Your task to perform on an android device: What's the news in Japan? Image 0: 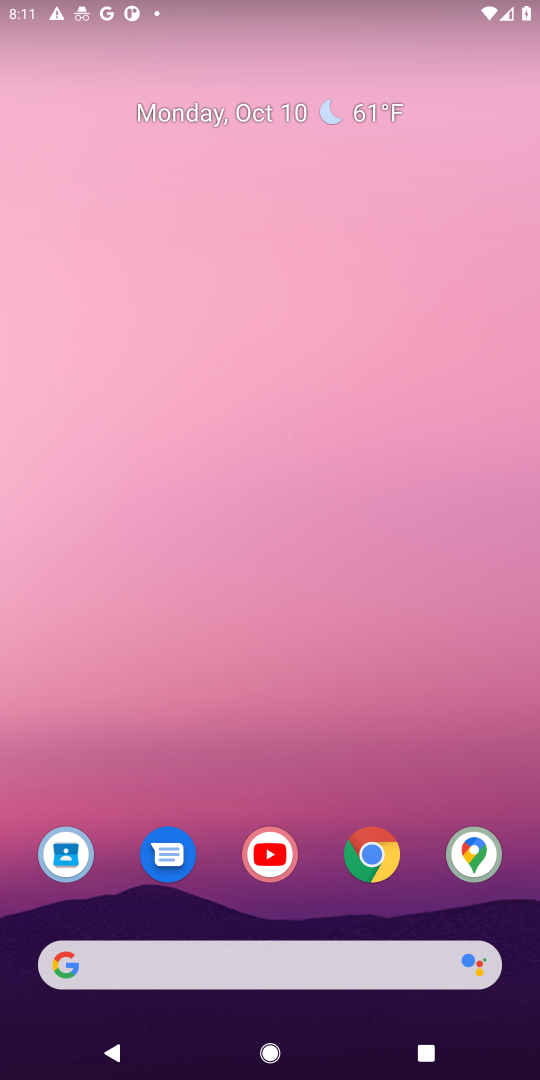
Step 0: click (372, 853)
Your task to perform on an android device: What's the news in Japan? Image 1: 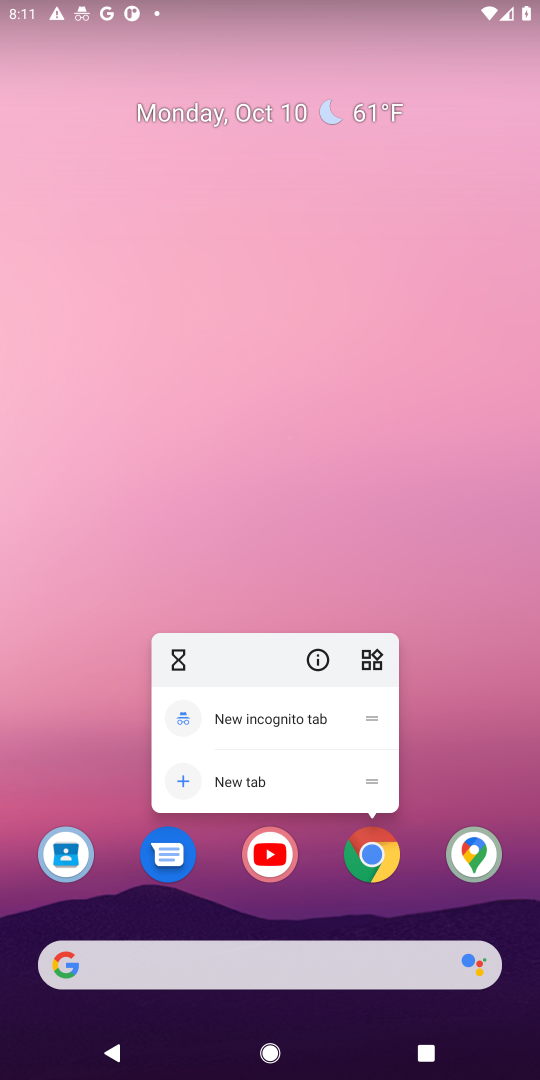
Step 1: click (373, 869)
Your task to perform on an android device: What's the news in Japan? Image 2: 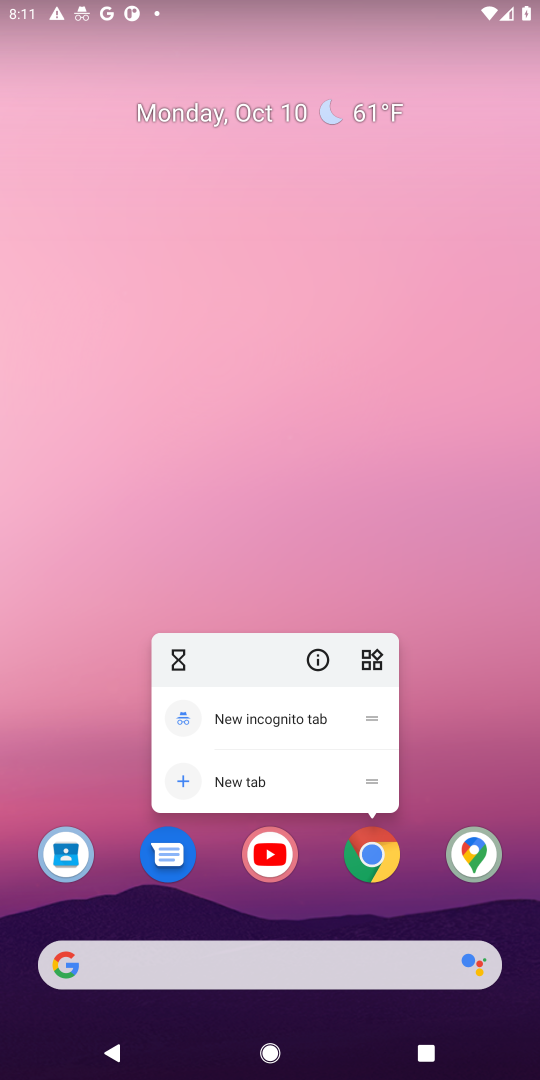
Step 2: click (381, 856)
Your task to perform on an android device: What's the news in Japan? Image 3: 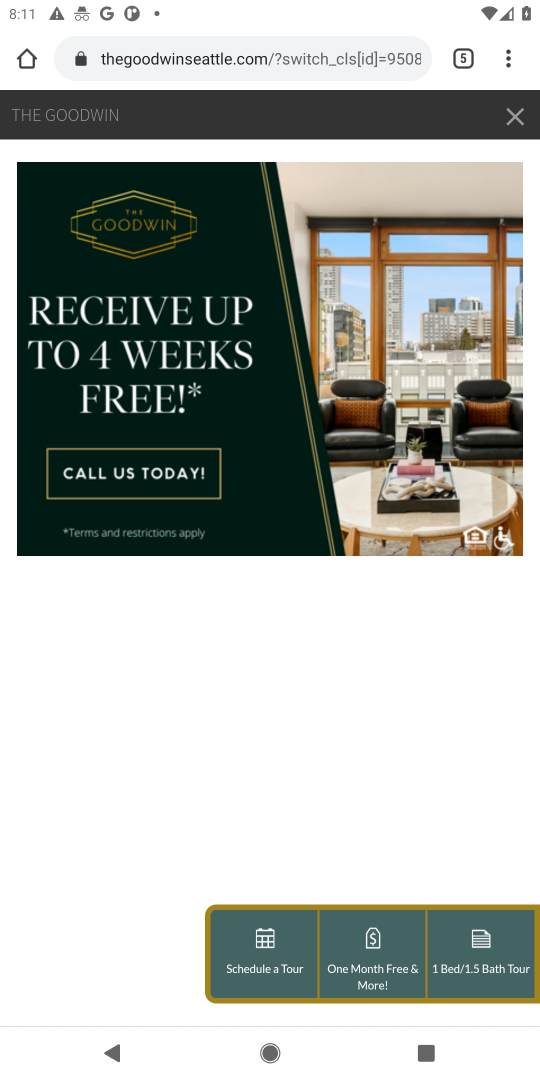
Step 3: click (380, 58)
Your task to perform on an android device: What's the news in Japan? Image 4: 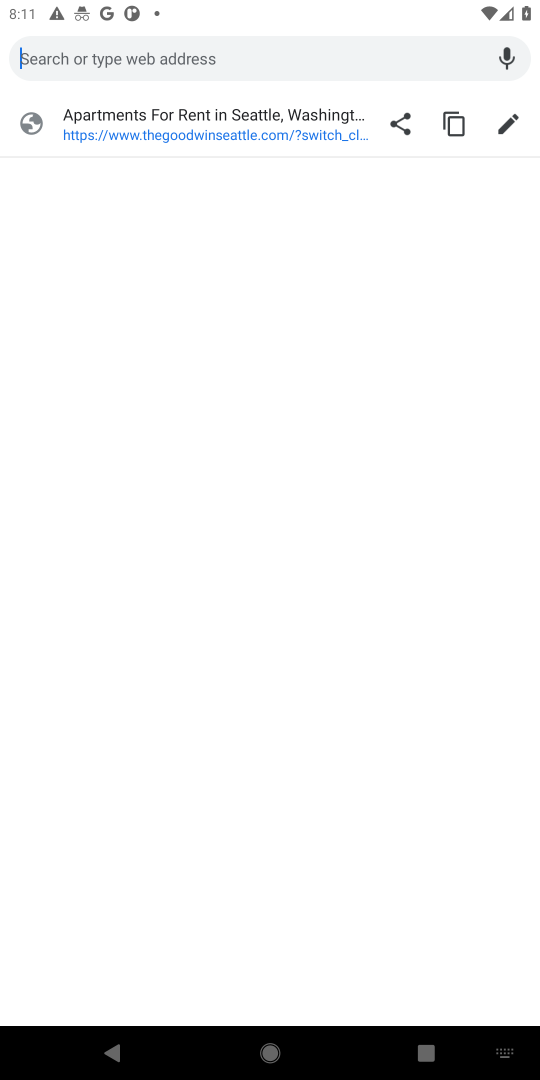
Step 4: type "news in Japan"
Your task to perform on an android device: What's the news in Japan? Image 5: 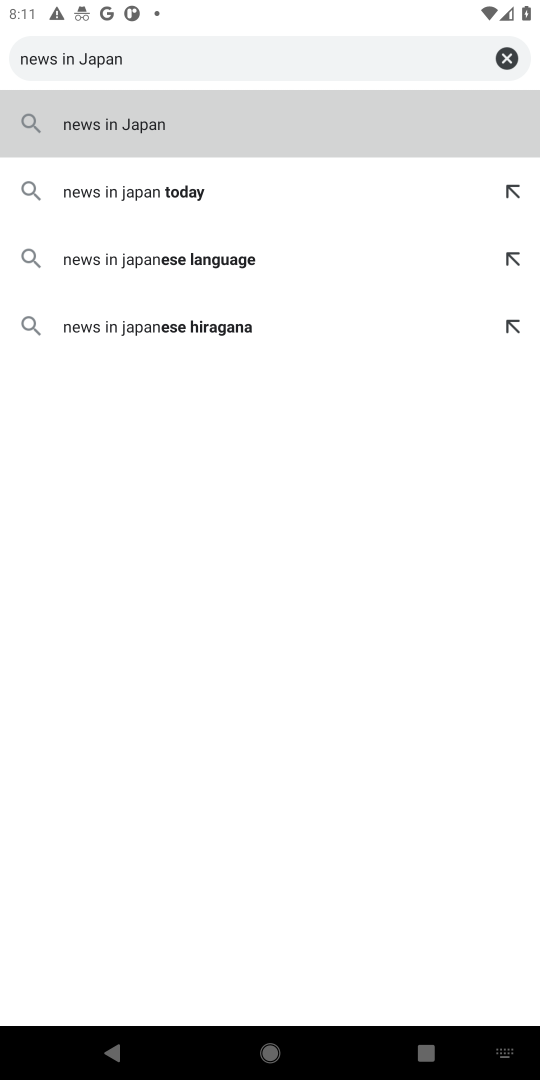
Step 5: click (127, 128)
Your task to perform on an android device: What's the news in Japan? Image 6: 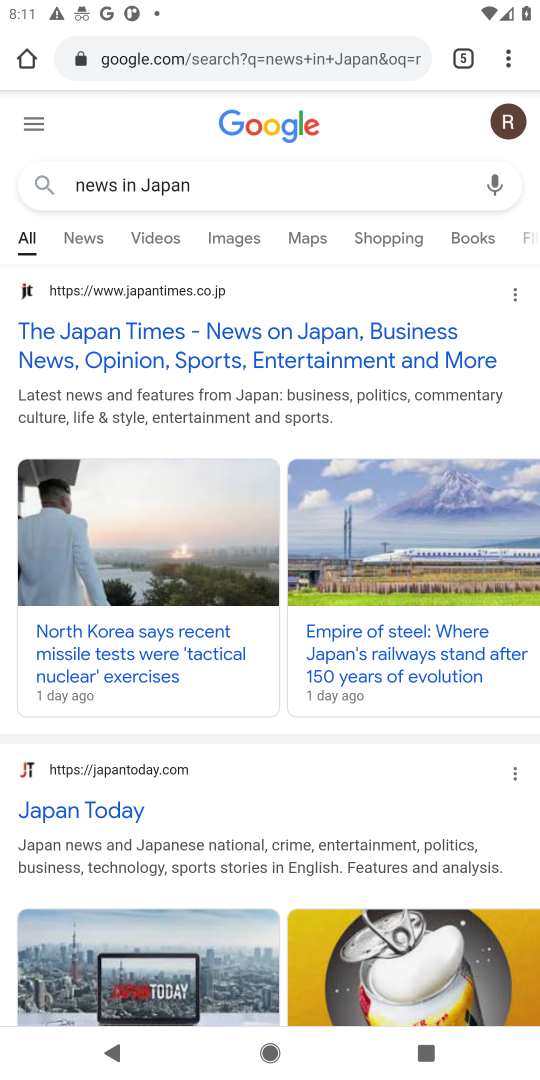
Step 6: click (83, 235)
Your task to perform on an android device: What's the news in Japan? Image 7: 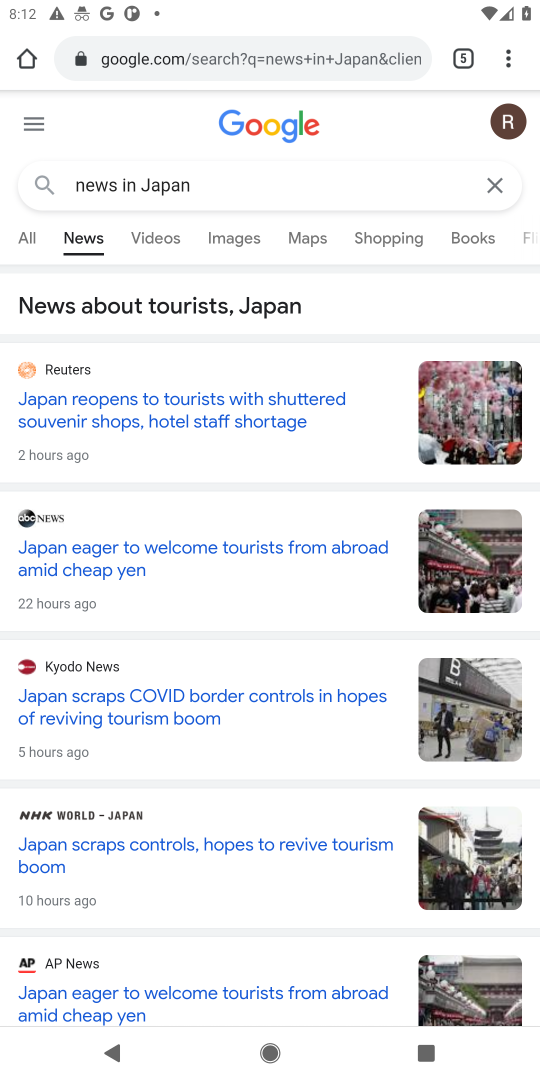
Step 7: task complete